Your task to perform on an android device: Open Google Maps and go to "Timeline" Image 0: 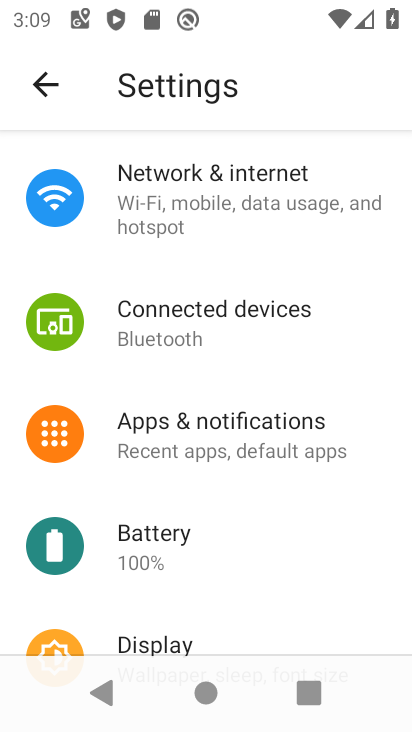
Step 0: press home button
Your task to perform on an android device: Open Google Maps and go to "Timeline" Image 1: 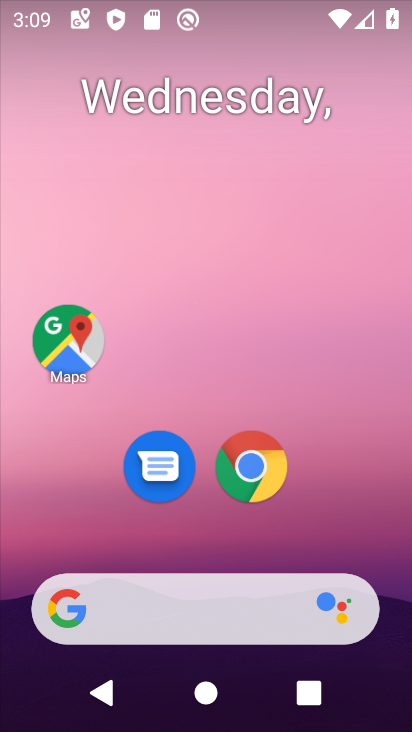
Step 1: drag from (238, 563) to (210, 33)
Your task to perform on an android device: Open Google Maps and go to "Timeline" Image 2: 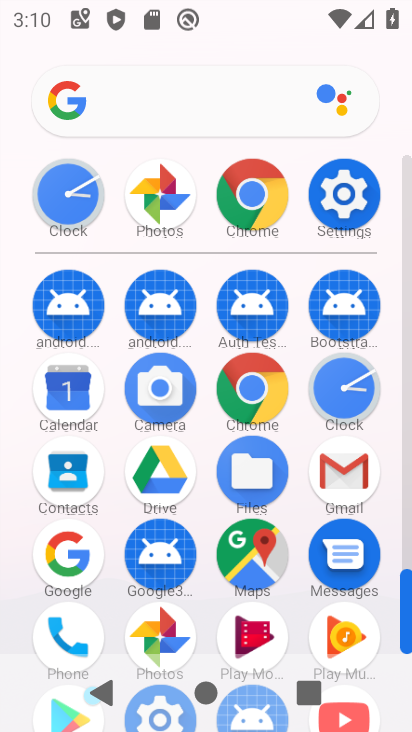
Step 2: click (254, 566)
Your task to perform on an android device: Open Google Maps and go to "Timeline" Image 3: 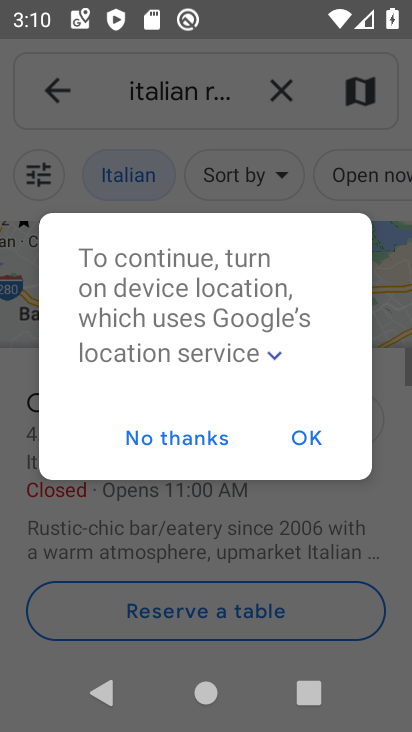
Step 3: click (304, 436)
Your task to perform on an android device: Open Google Maps and go to "Timeline" Image 4: 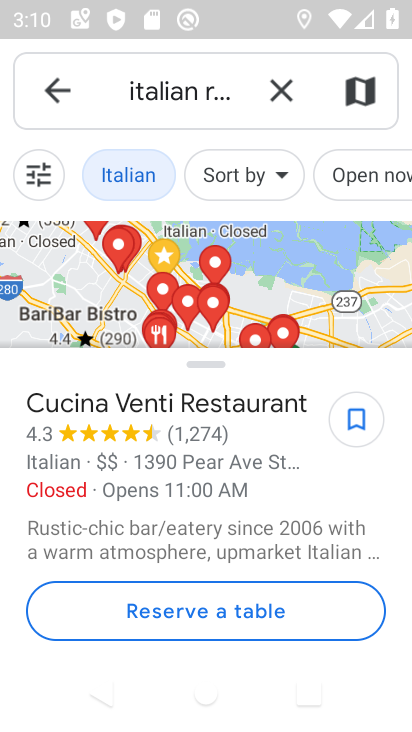
Step 4: click (63, 94)
Your task to perform on an android device: Open Google Maps and go to "Timeline" Image 5: 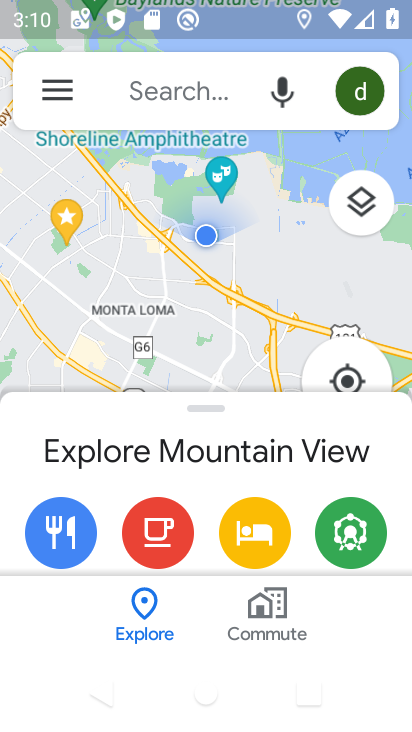
Step 5: click (53, 87)
Your task to perform on an android device: Open Google Maps and go to "Timeline" Image 6: 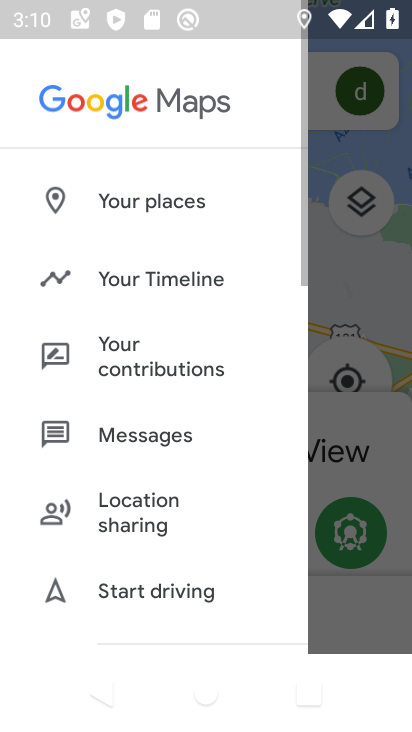
Step 6: click (136, 263)
Your task to perform on an android device: Open Google Maps and go to "Timeline" Image 7: 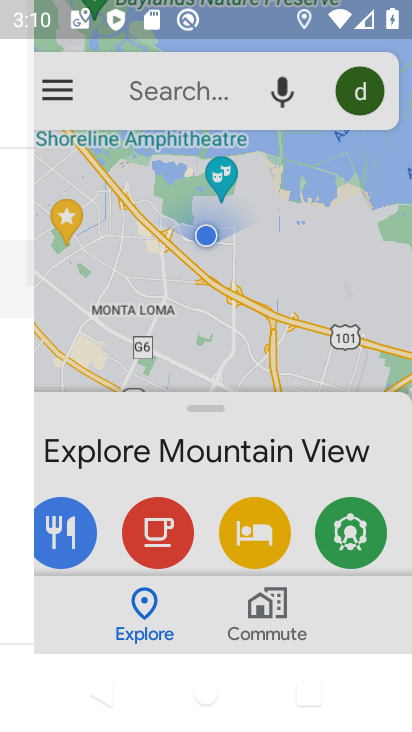
Step 7: task complete